Your task to perform on an android device: allow cookies in the chrome app Image 0: 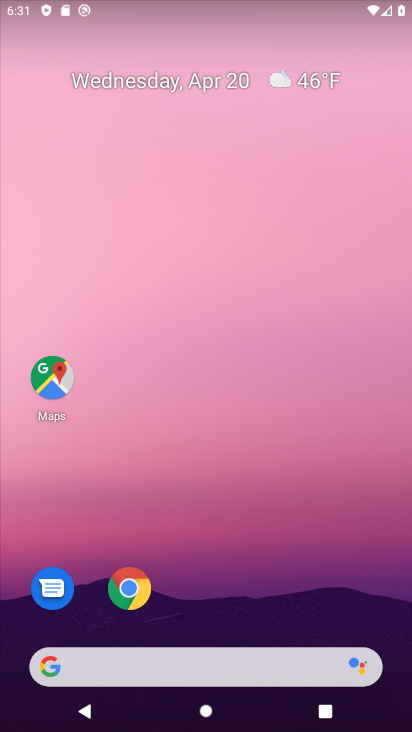
Step 0: click (139, 584)
Your task to perform on an android device: allow cookies in the chrome app Image 1: 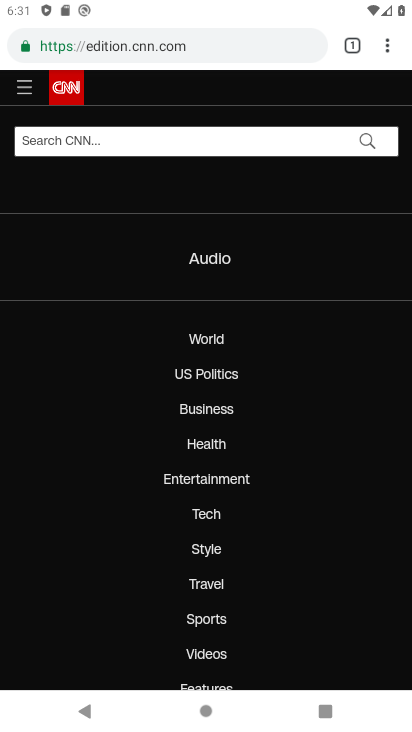
Step 1: drag from (392, 42) to (243, 598)
Your task to perform on an android device: allow cookies in the chrome app Image 2: 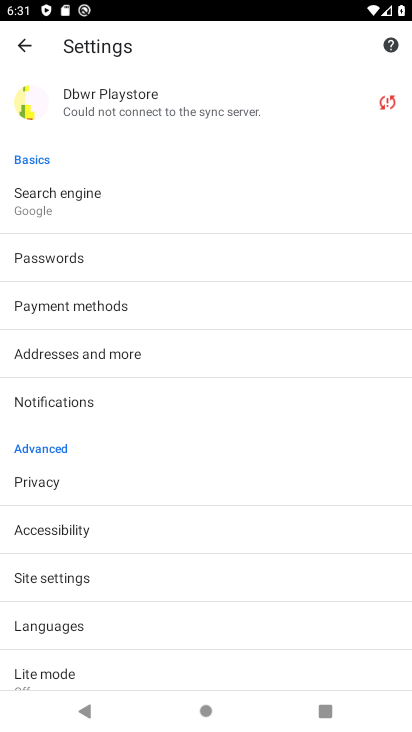
Step 2: click (101, 570)
Your task to perform on an android device: allow cookies in the chrome app Image 3: 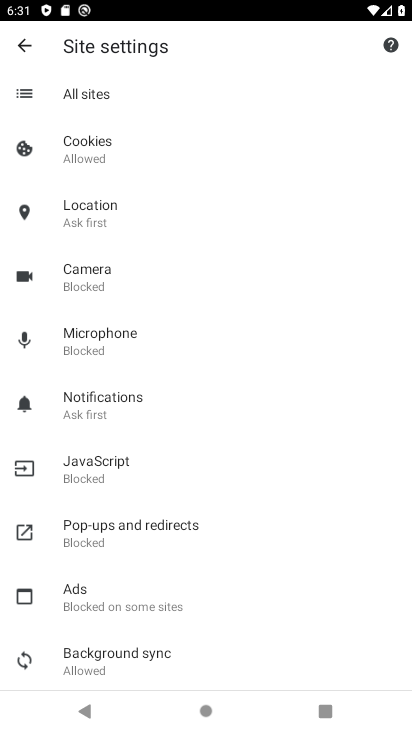
Step 3: click (92, 154)
Your task to perform on an android device: allow cookies in the chrome app Image 4: 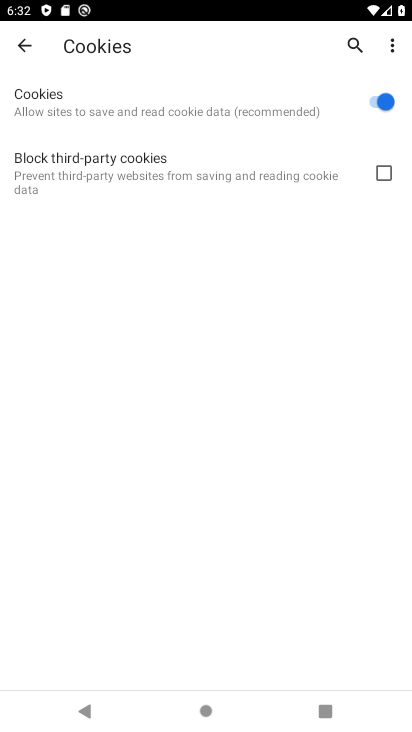
Step 4: task complete